Your task to perform on an android device: View the shopping cart on costco. Add dell xps to the cart on costco Image 0: 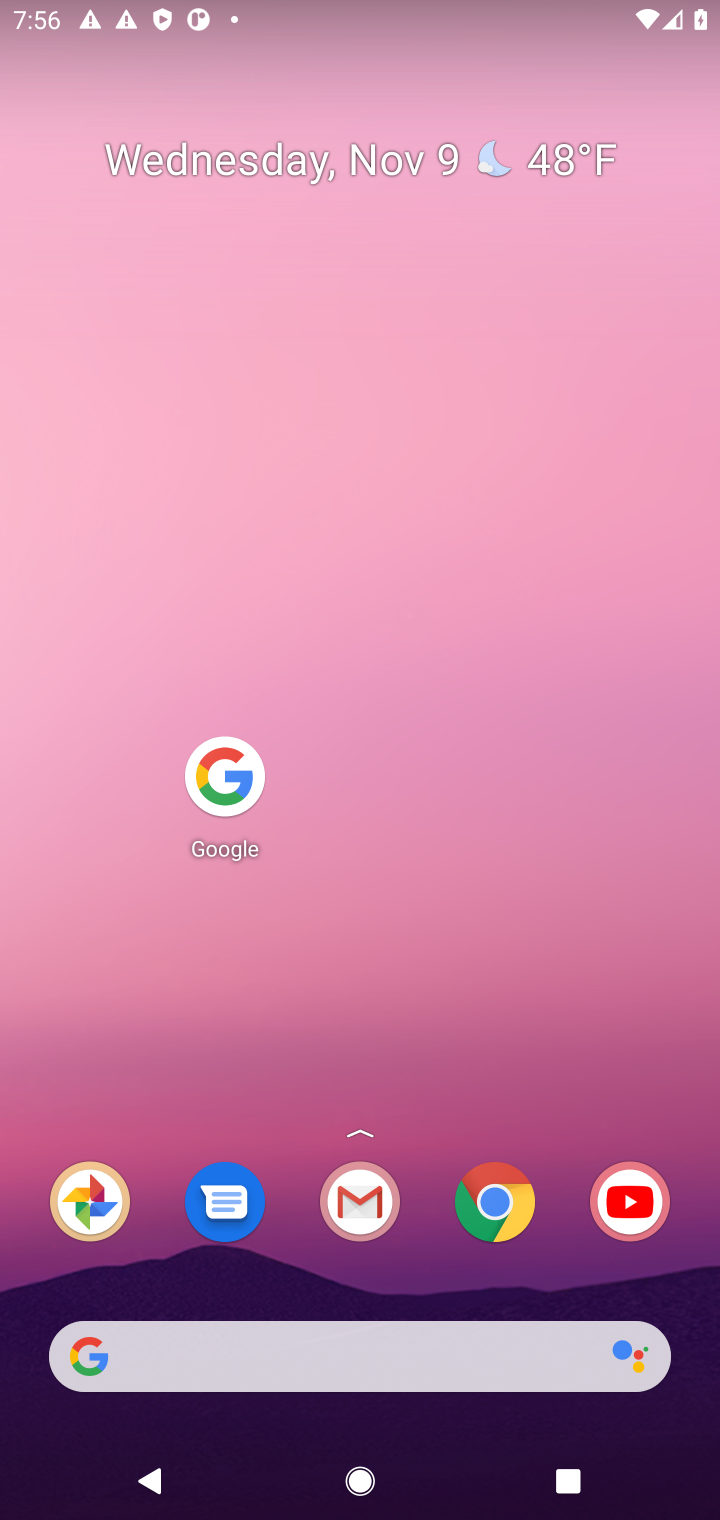
Step 0: click (208, 783)
Your task to perform on an android device: View the shopping cart on costco. Add dell xps to the cart on costco Image 1: 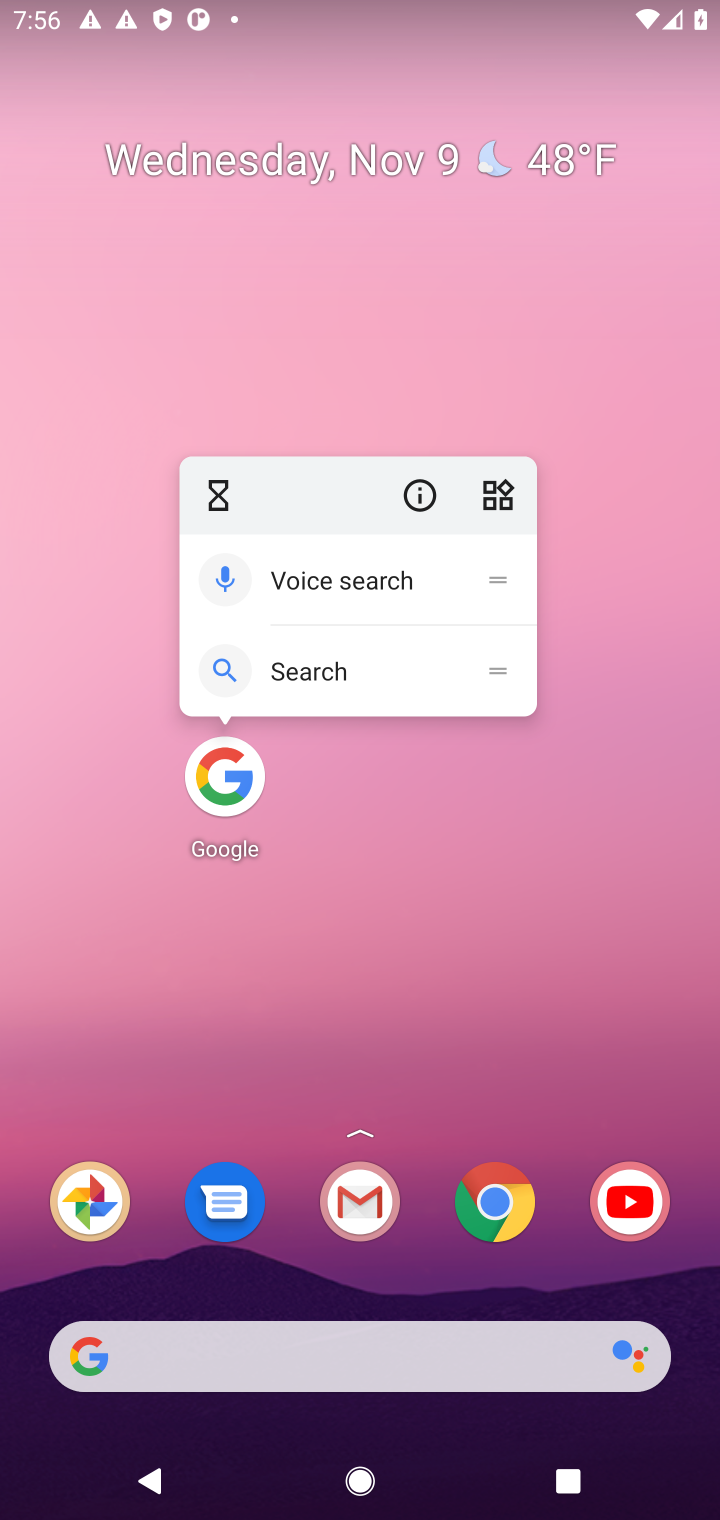
Step 1: click (208, 787)
Your task to perform on an android device: View the shopping cart on costco. Add dell xps to the cart on costco Image 2: 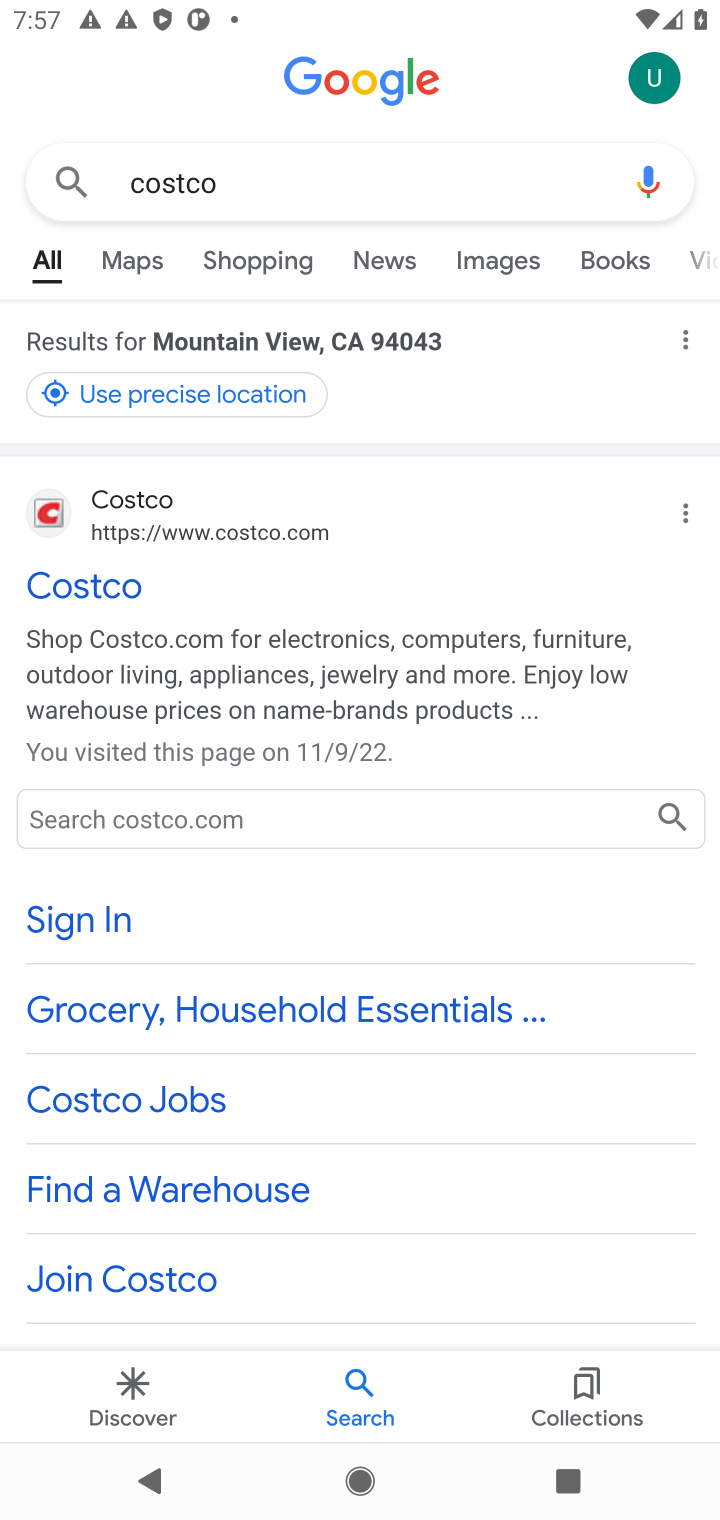
Step 2: click (75, 571)
Your task to perform on an android device: View the shopping cart on costco. Add dell xps to the cart on costco Image 3: 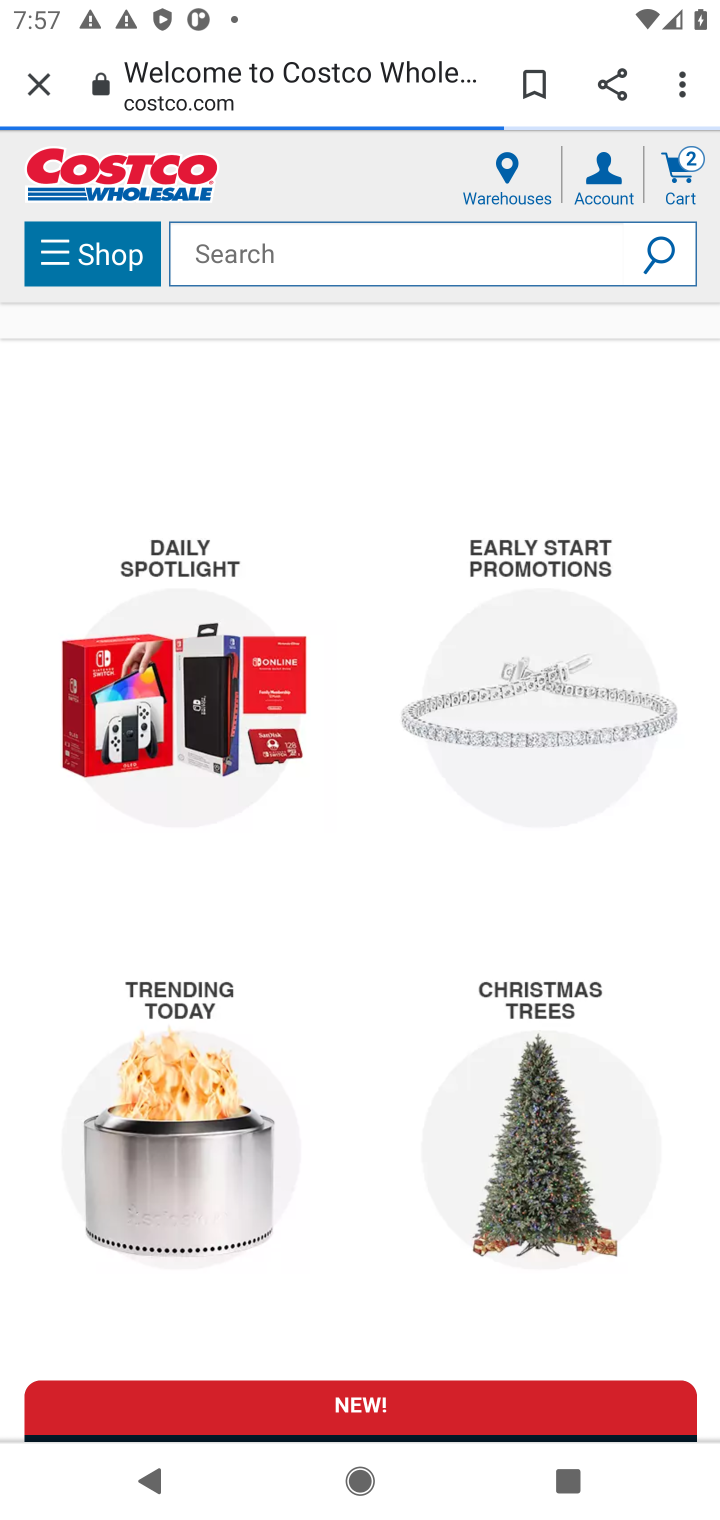
Step 3: click (334, 241)
Your task to perform on an android device: View the shopping cart on costco. Add dell xps to the cart on costco Image 4: 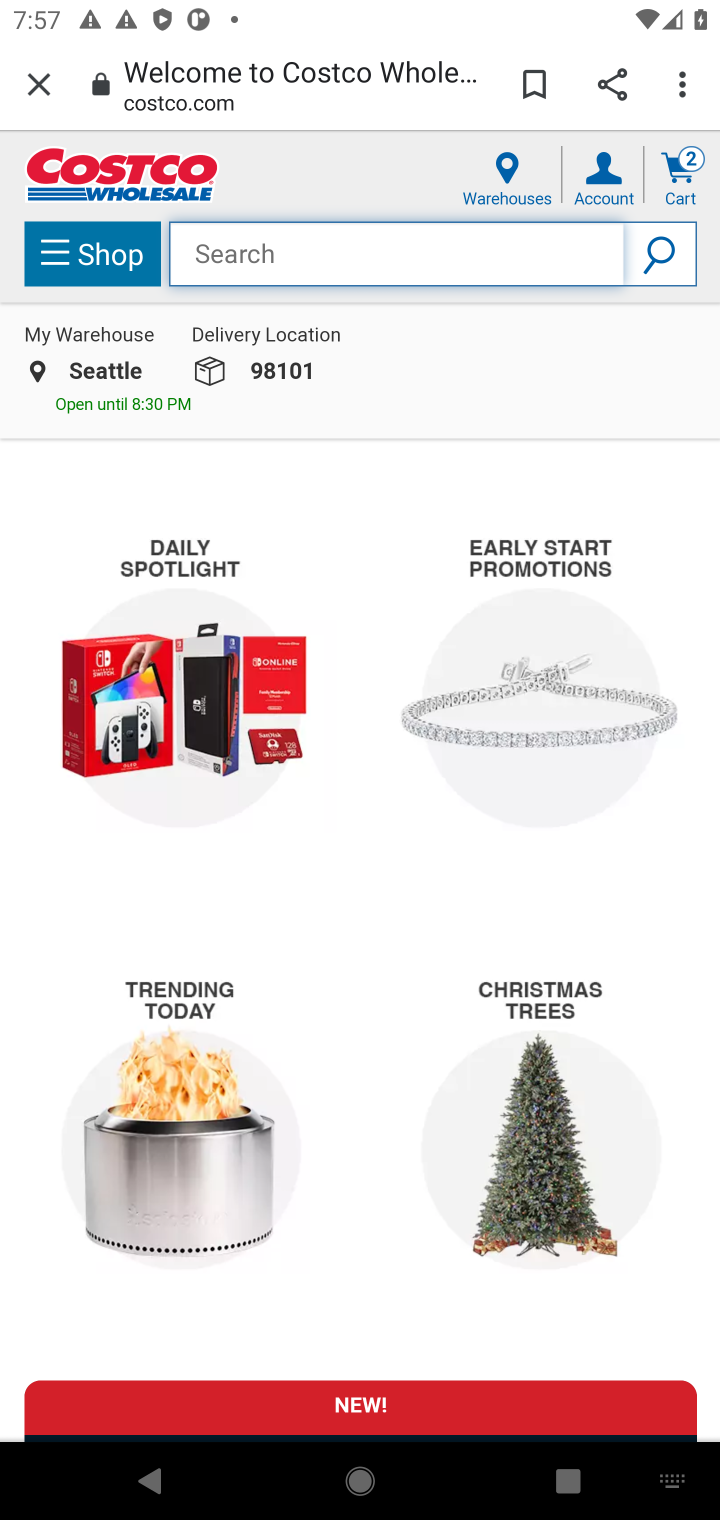
Step 4: type "dell xps"
Your task to perform on an android device: View the shopping cart on costco. Add dell xps to the cart on costco Image 5: 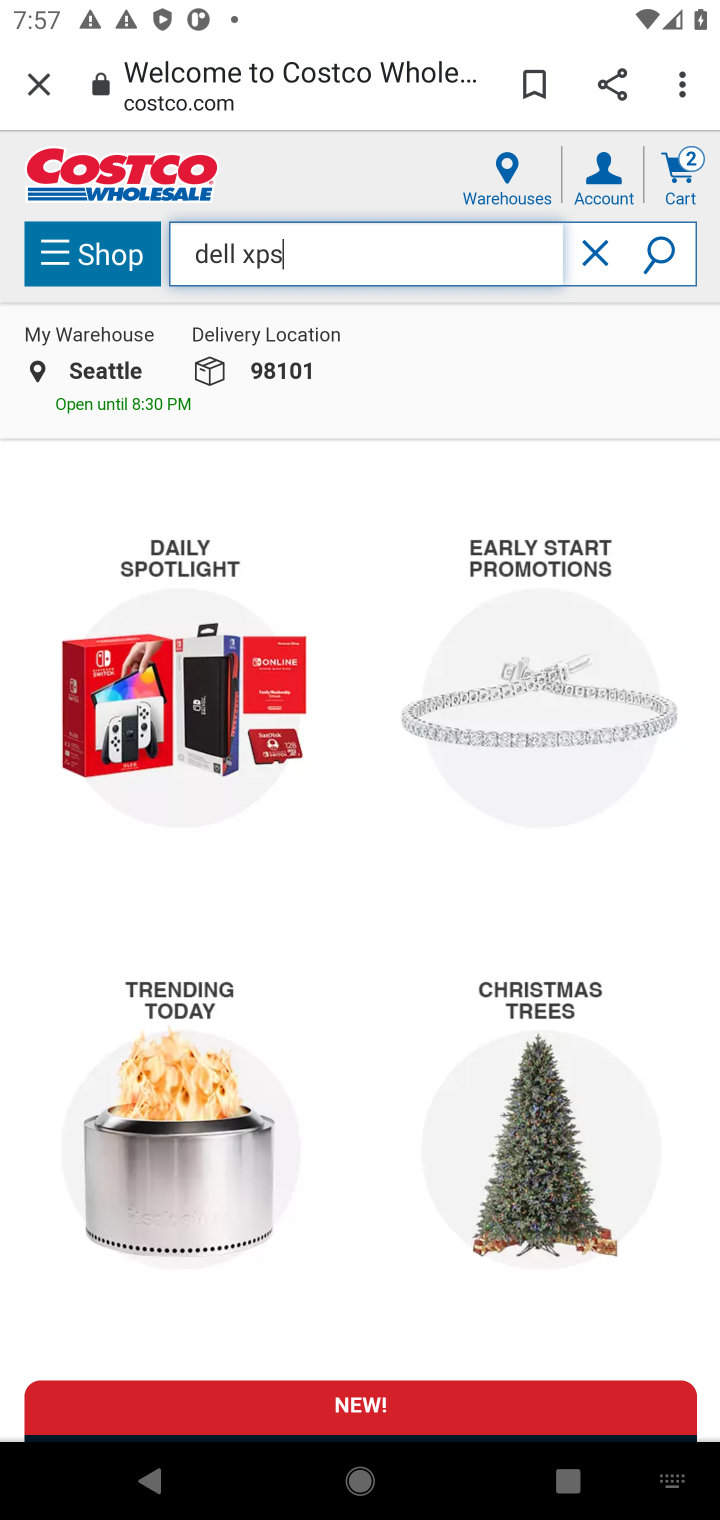
Step 5: press enter
Your task to perform on an android device: View the shopping cart on costco. Add dell xps to the cart on costco Image 6: 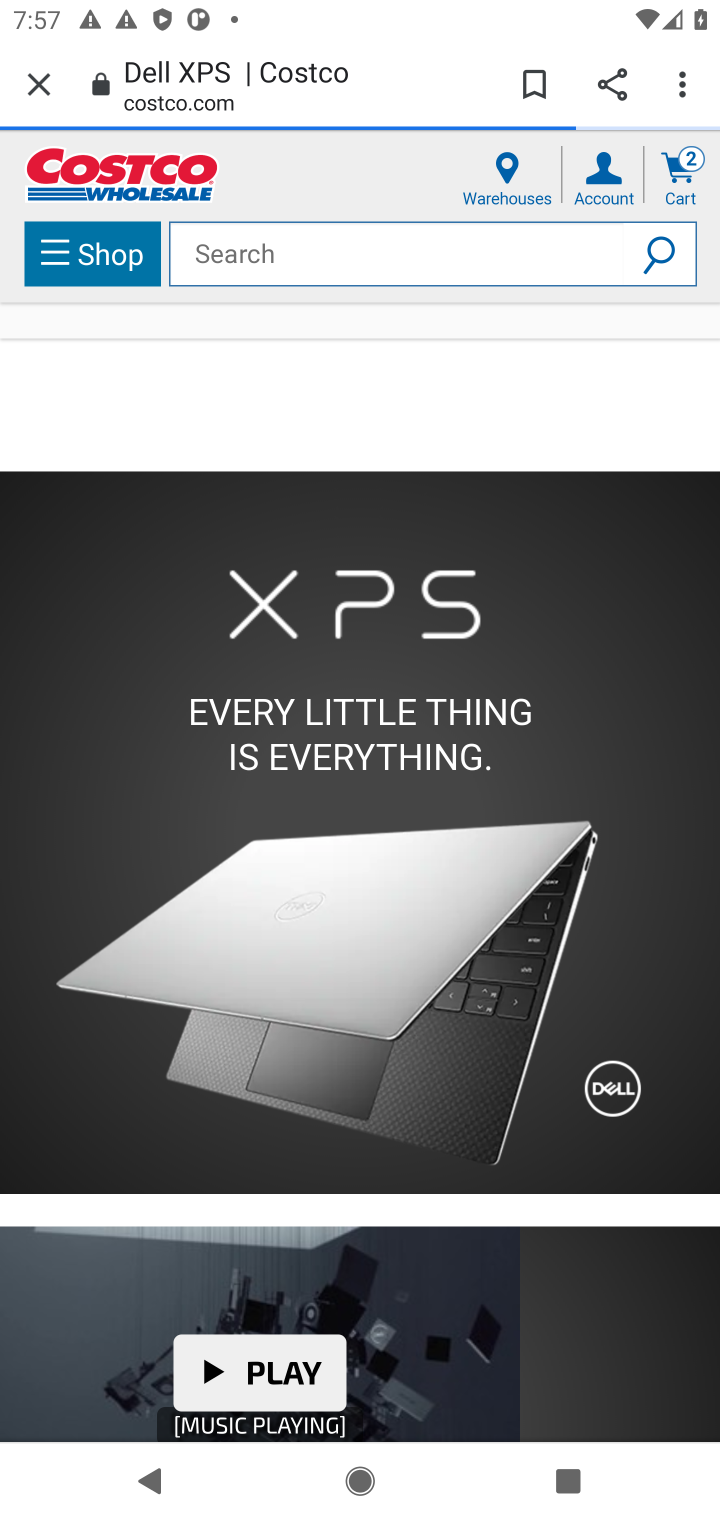
Step 6: drag from (434, 1252) to (615, 557)
Your task to perform on an android device: View the shopping cart on costco. Add dell xps to the cart on costco Image 7: 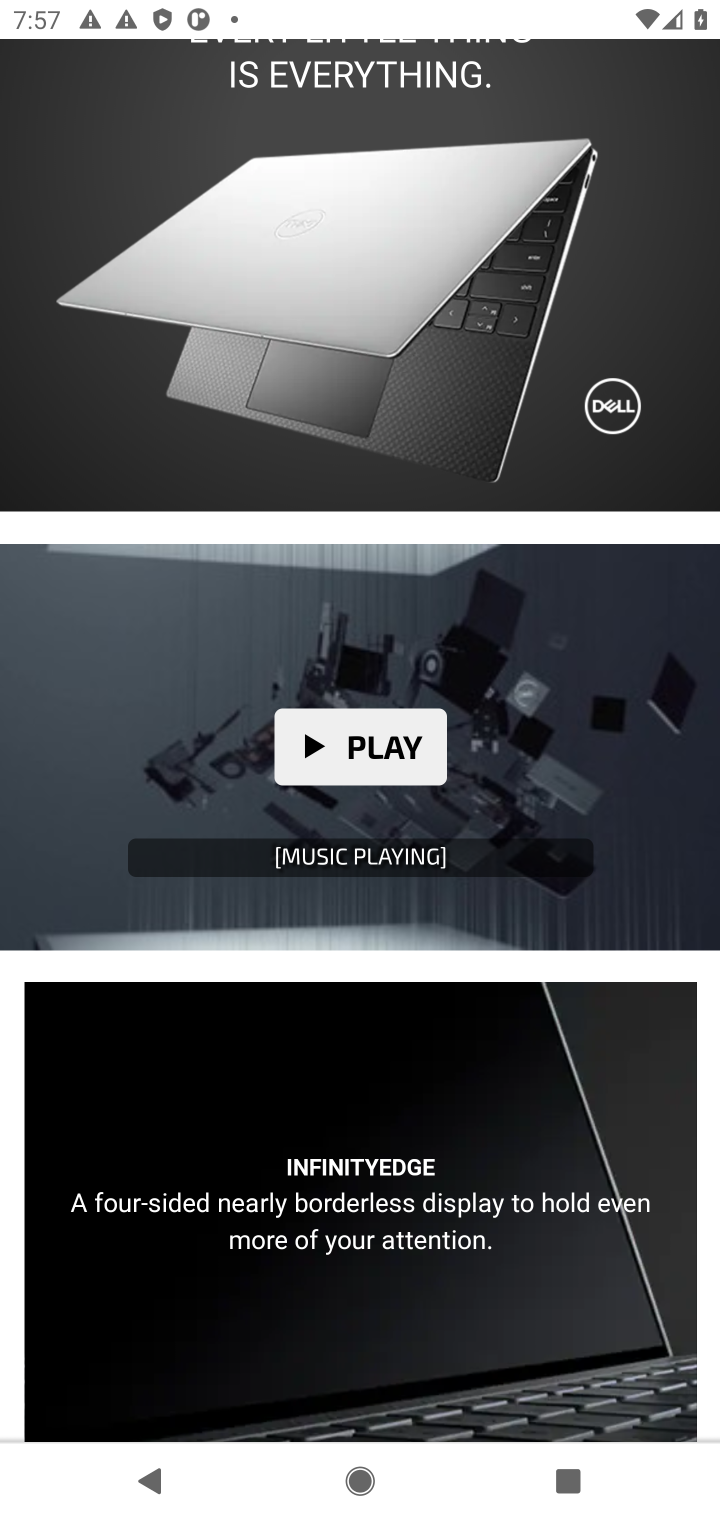
Step 7: drag from (425, 1106) to (627, 487)
Your task to perform on an android device: View the shopping cart on costco. Add dell xps to the cart on costco Image 8: 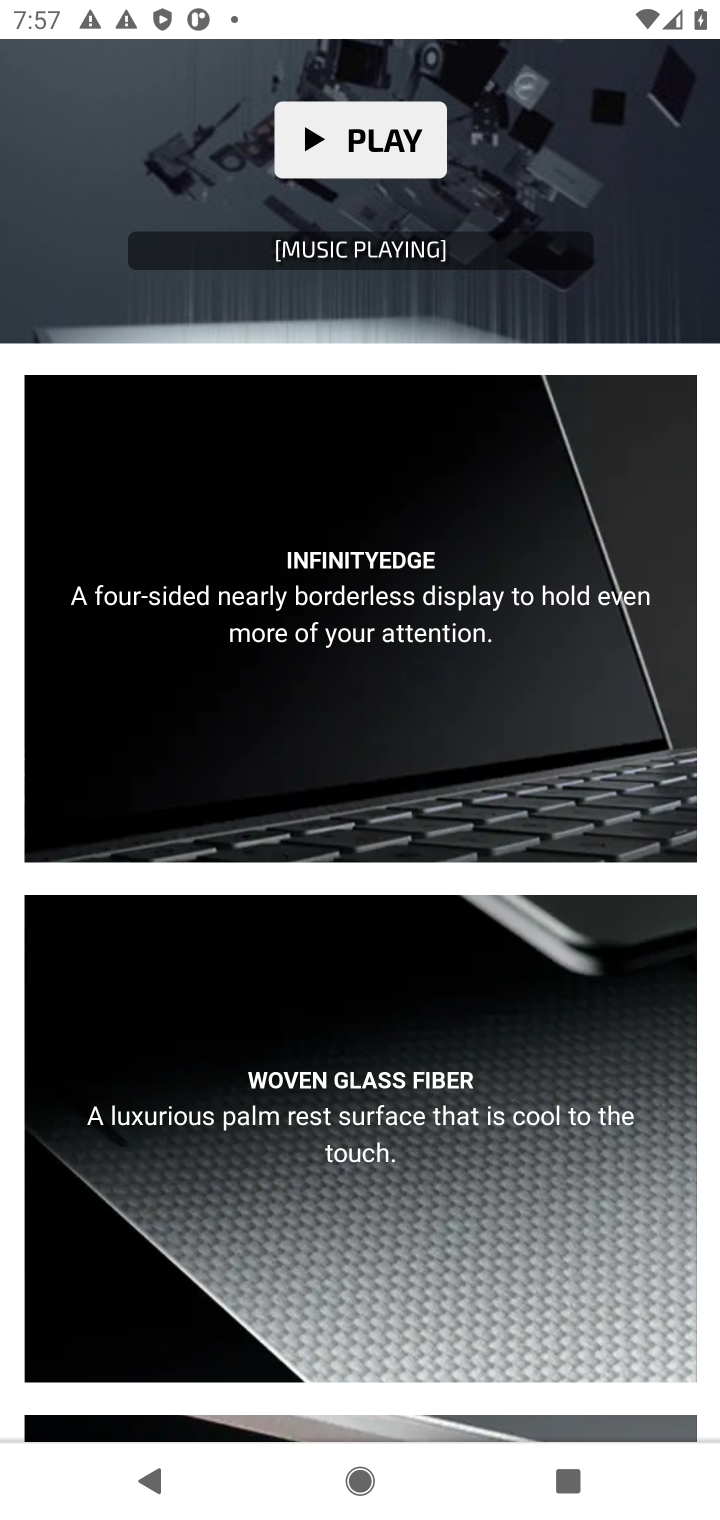
Step 8: drag from (403, 1165) to (517, 576)
Your task to perform on an android device: View the shopping cart on costco. Add dell xps to the cart on costco Image 9: 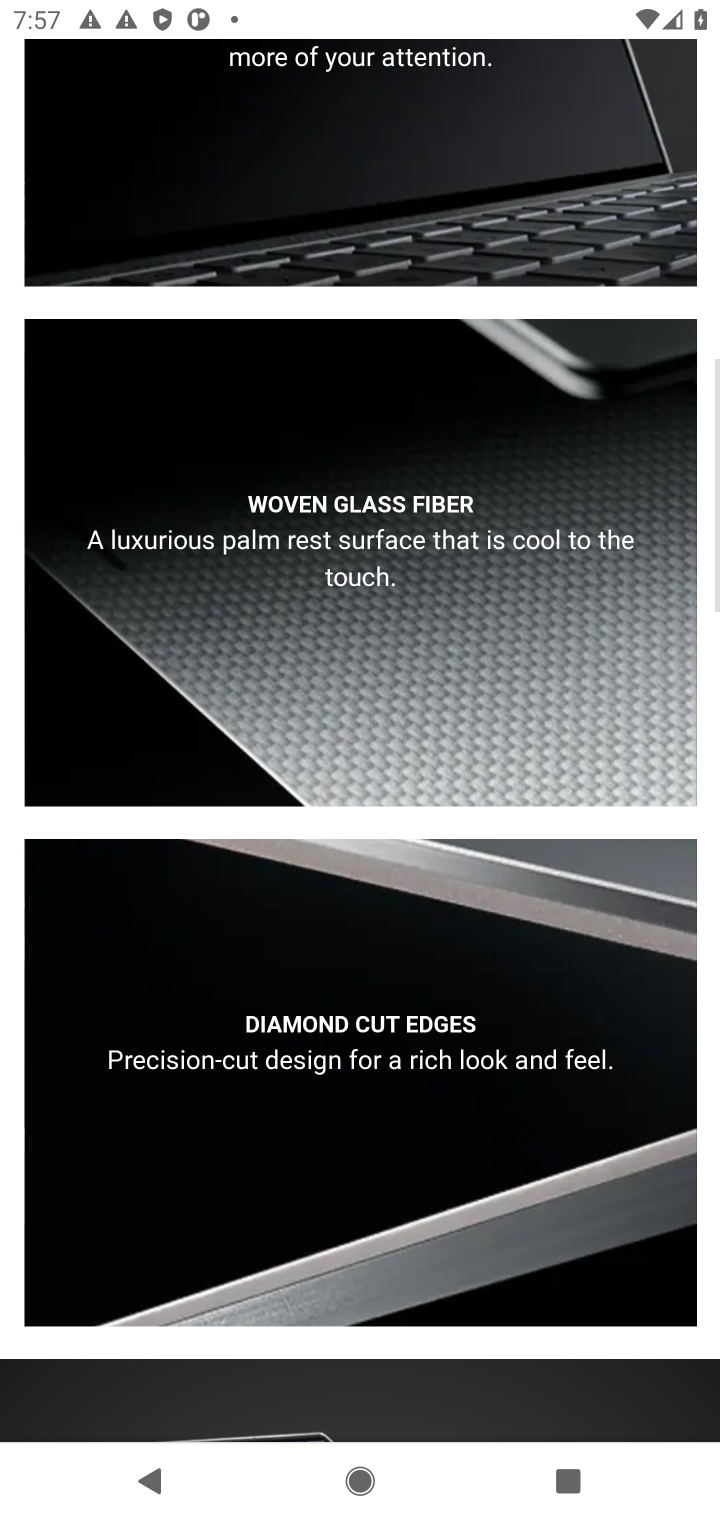
Step 9: drag from (411, 1185) to (503, 456)
Your task to perform on an android device: View the shopping cart on costco. Add dell xps to the cart on costco Image 10: 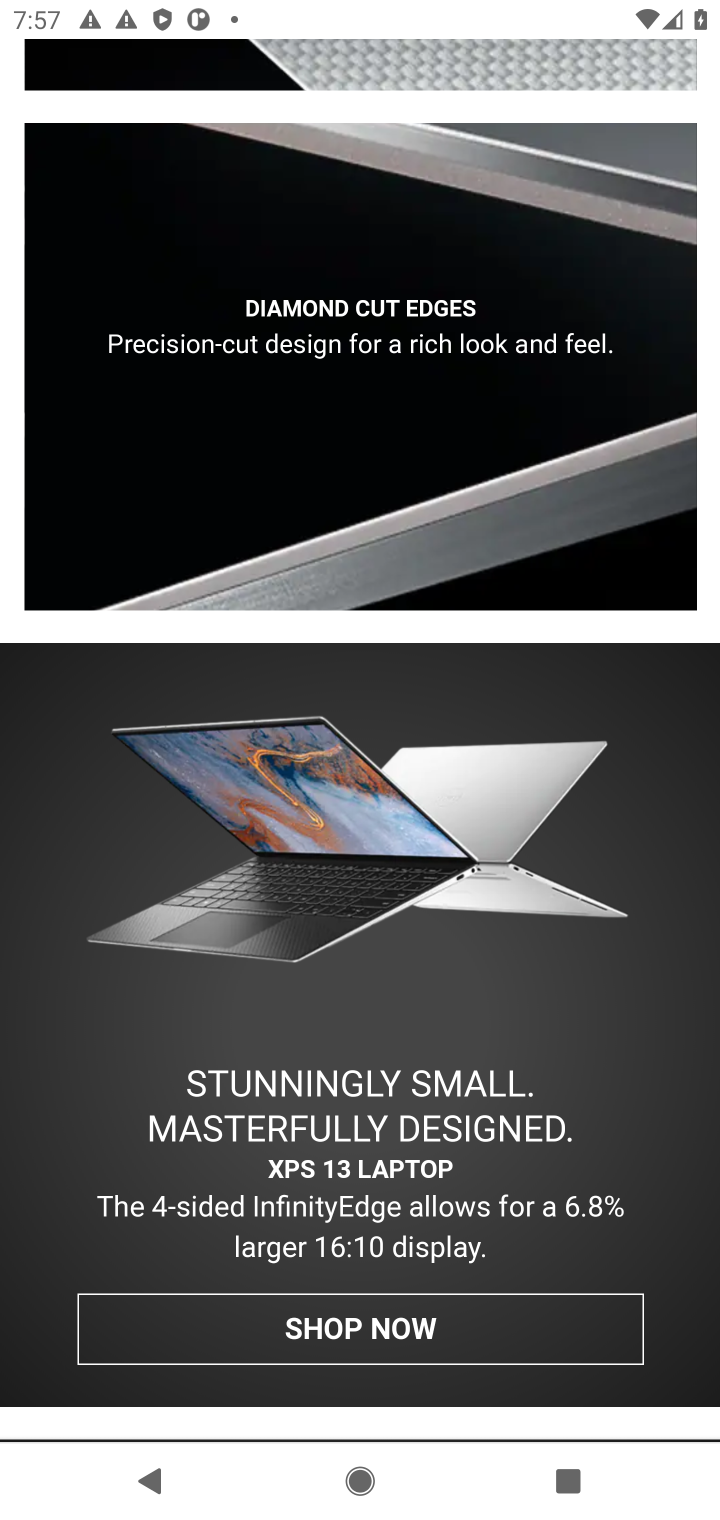
Step 10: click (412, 1325)
Your task to perform on an android device: View the shopping cart on costco. Add dell xps to the cart on costco Image 11: 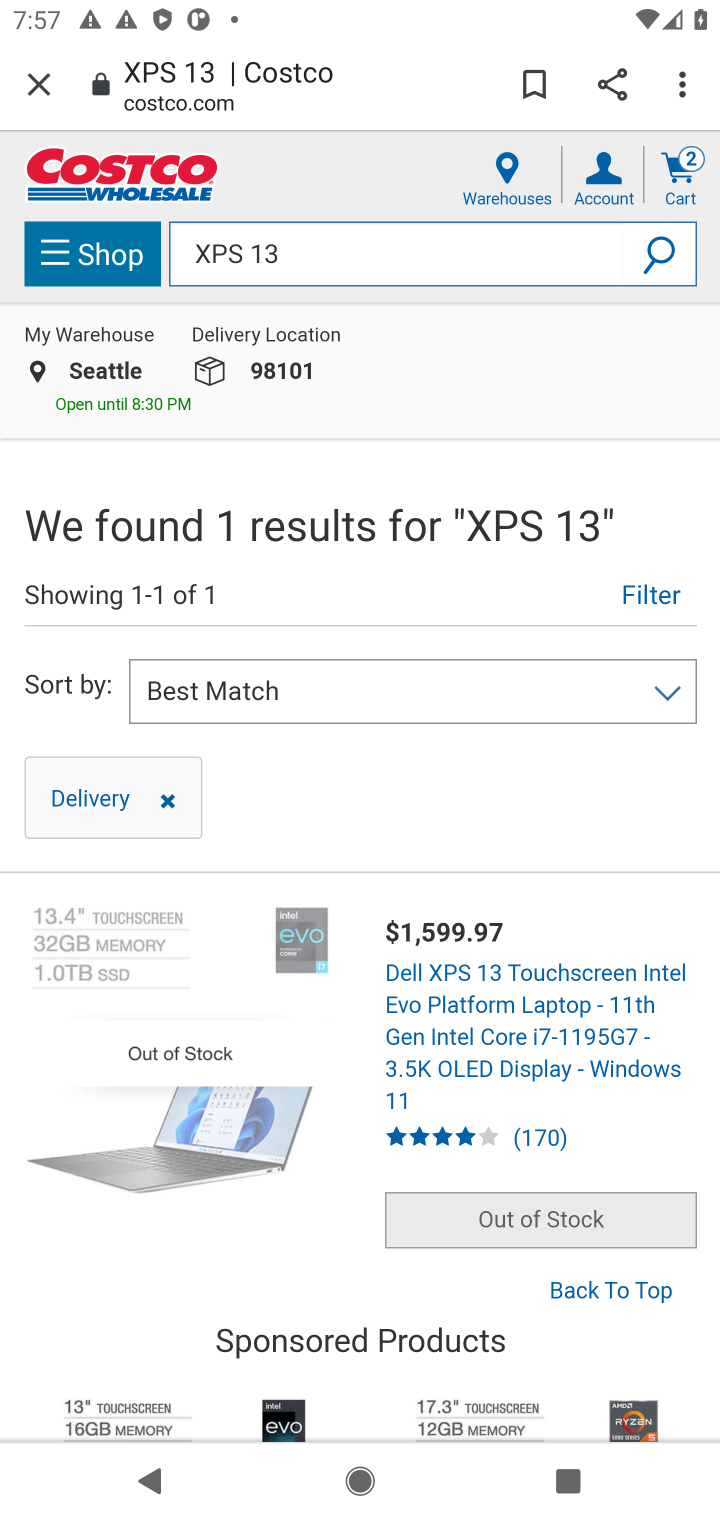
Step 11: task complete